Your task to perform on an android device: Open eBay Image 0: 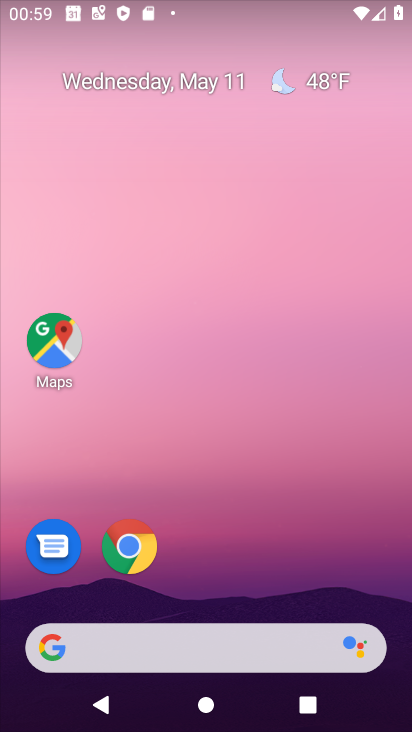
Step 0: click (133, 550)
Your task to perform on an android device: Open eBay Image 1: 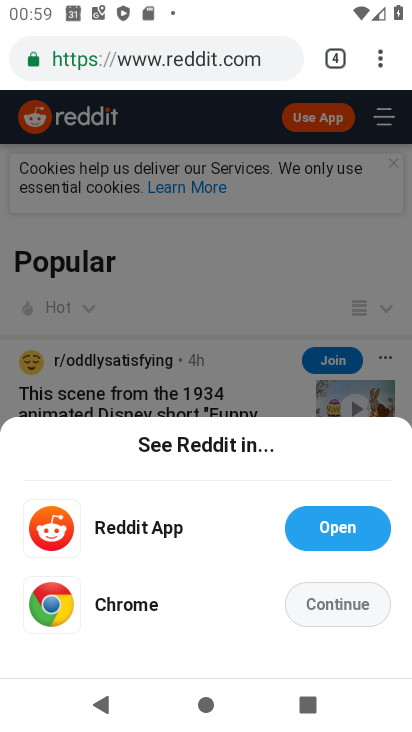
Step 1: click (302, 604)
Your task to perform on an android device: Open eBay Image 2: 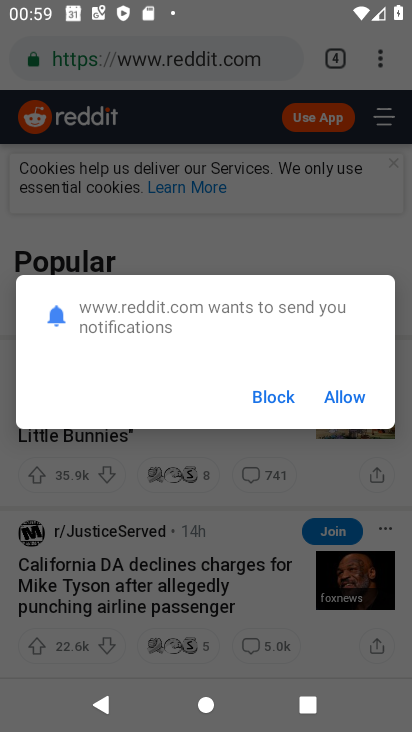
Step 2: click (336, 393)
Your task to perform on an android device: Open eBay Image 3: 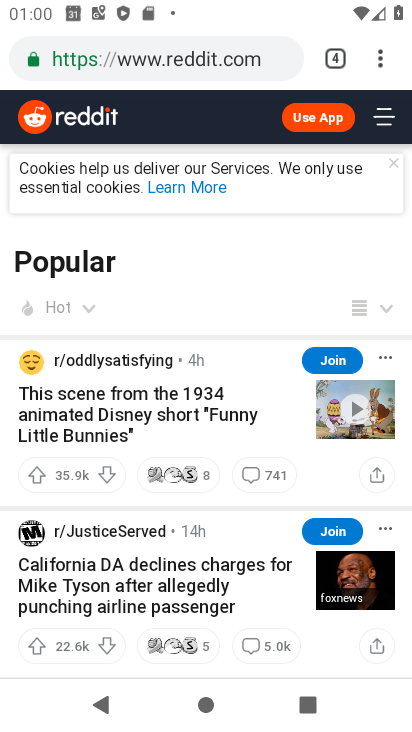
Step 3: click (331, 69)
Your task to perform on an android device: Open eBay Image 4: 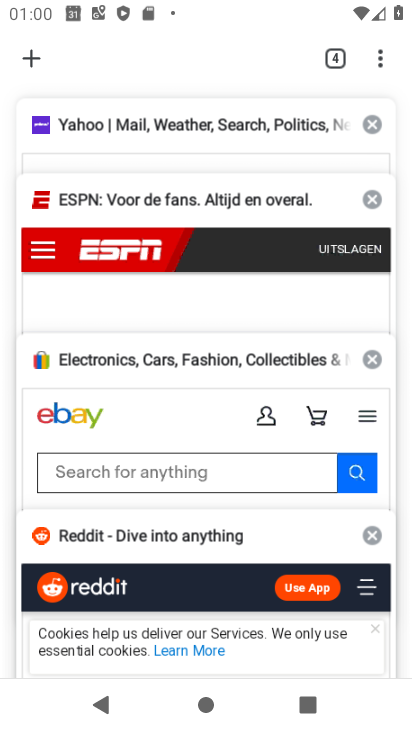
Step 4: click (138, 402)
Your task to perform on an android device: Open eBay Image 5: 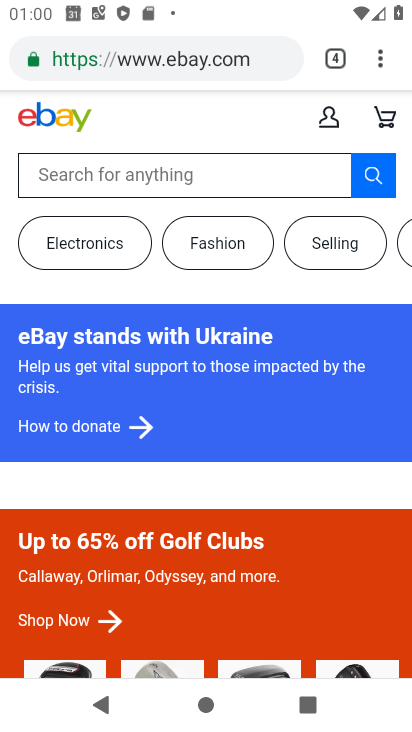
Step 5: task complete